Your task to perform on an android device: Do I have any events tomorrow? Image 0: 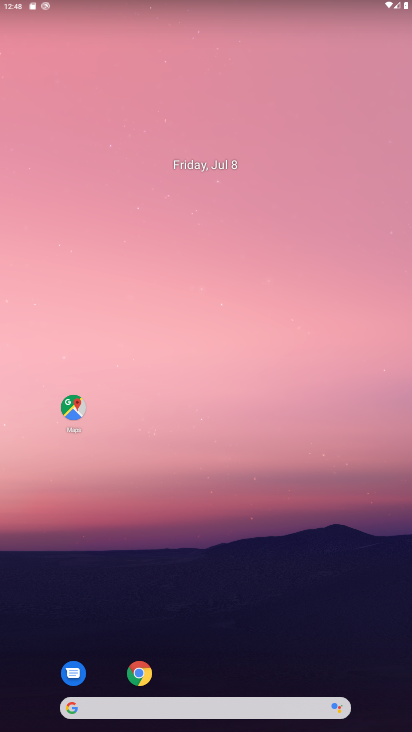
Step 0: drag from (245, 677) to (224, 166)
Your task to perform on an android device: Do I have any events tomorrow? Image 1: 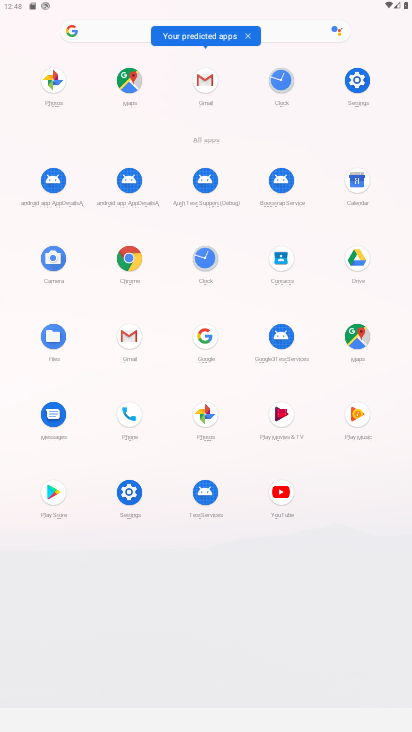
Step 1: click (358, 78)
Your task to perform on an android device: Do I have any events tomorrow? Image 2: 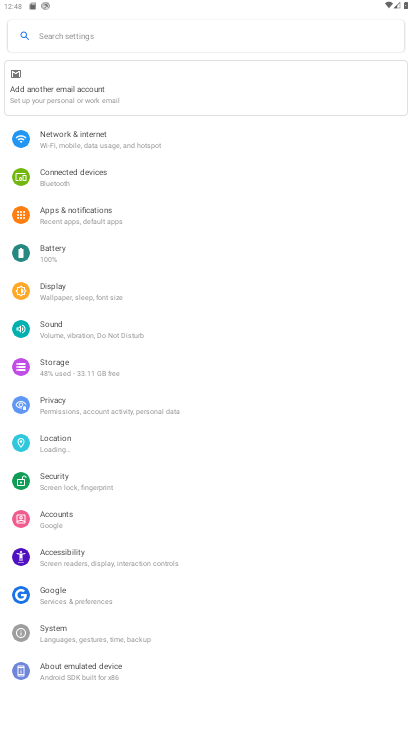
Step 2: click (51, 288)
Your task to perform on an android device: Do I have any events tomorrow? Image 3: 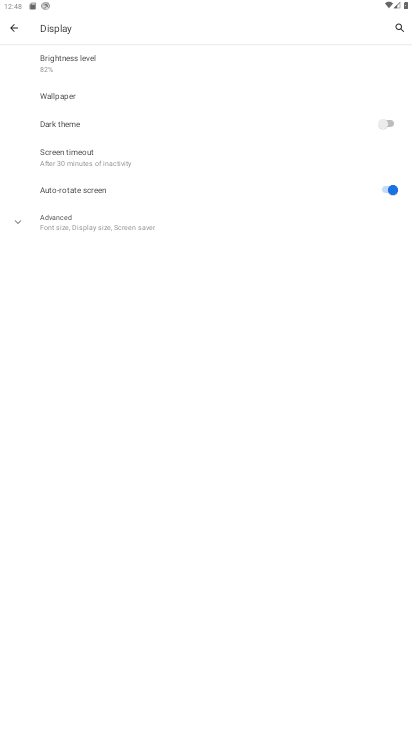
Step 3: click (66, 225)
Your task to perform on an android device: Do I have any events tomorrow? Image 4: 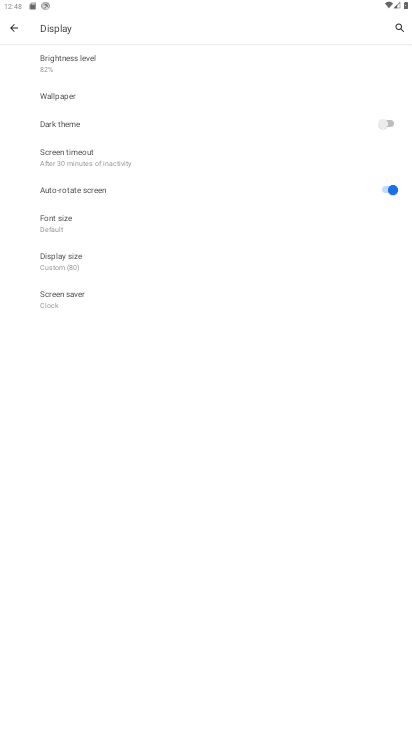
Step 4: click (94, 309)
Your task to perform on an android device: Do I have any events tomorrow? Image 5: 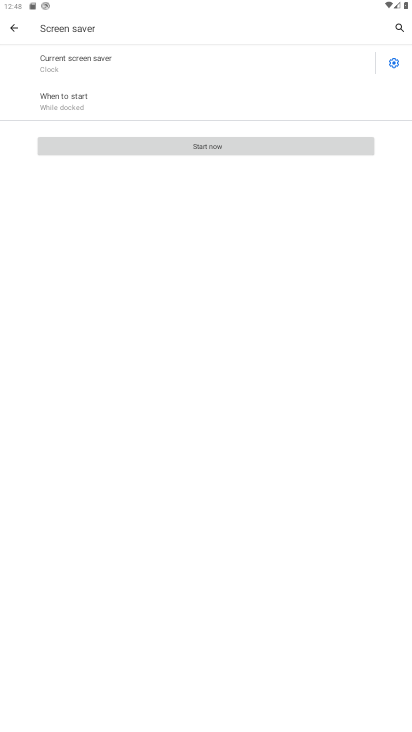
Step 5: click (17, 27)
Your task to perform on an android device: Do I have any events tomorrow? Image 6: 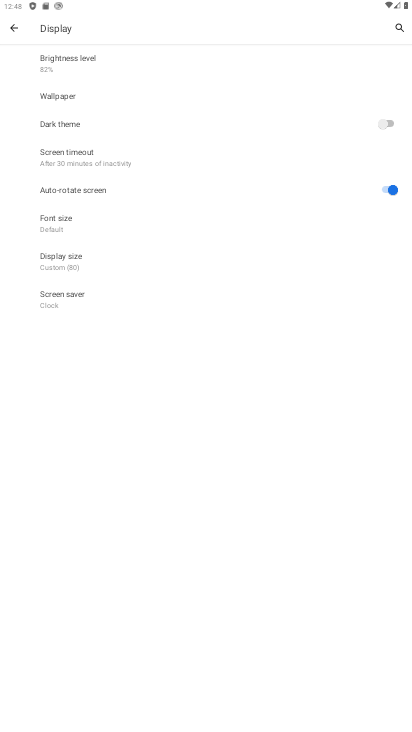
Step 6: click (70, 258)
Your task to perform on an android device: Do I have any events tomorrow? Image 7: 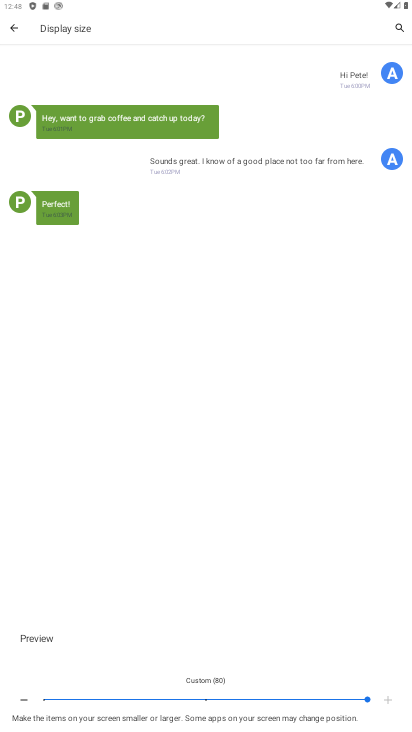
Step 7: click (204, 698)
Your task to perform on an android device: Do I have any events tomorrow? Image 8: 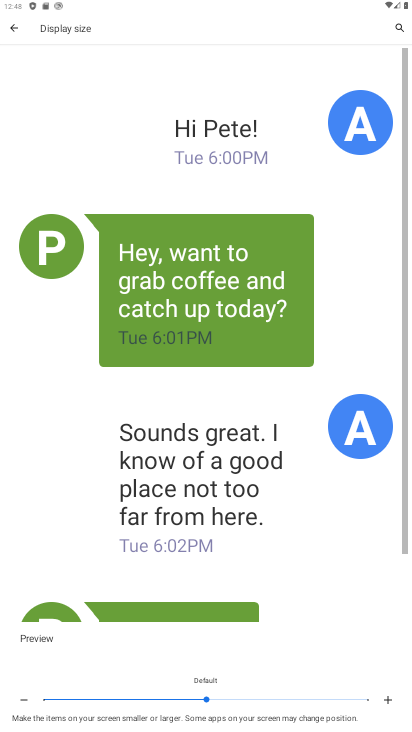
Step 8: click (275, 703)
Your task to perform on an android device: Do I have any events tomorrow? Image 9: 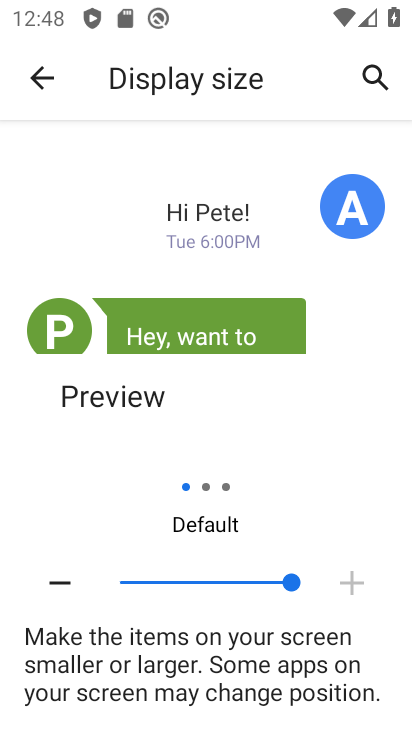
Step 9: task complete